Your task to perform on an android device: Open maps Image 0: 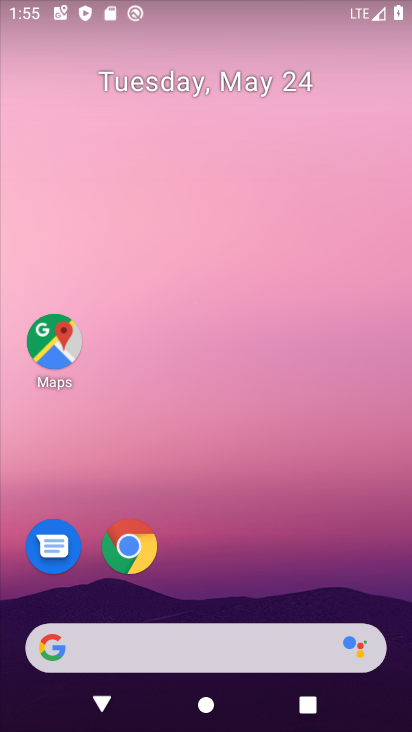
Step 0: drag from (245, 513) to (187, 92)
Your task to perform on an android device: Open maps Image 1: 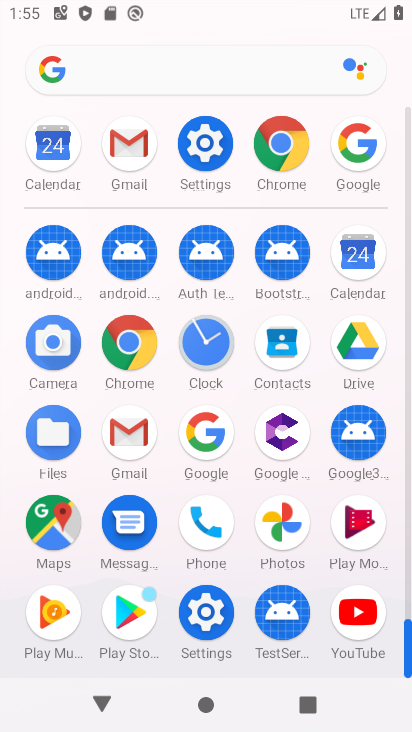
Step 1: click (29, 521)
Your task to perform on an android device: Open maps Image 2: 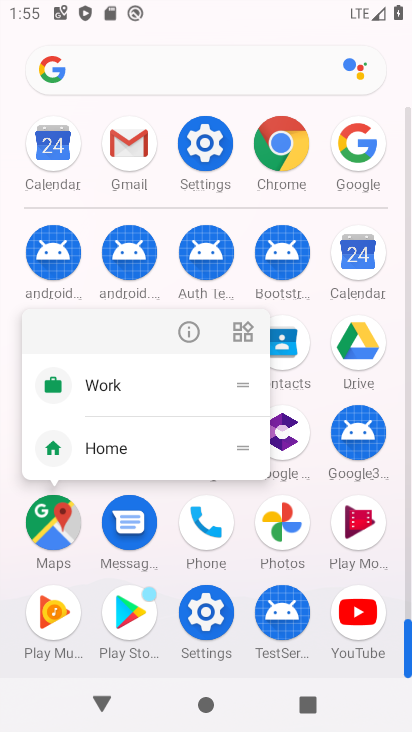
Step 2: click (185, 329)
Your task to perform on an android device: Open maps Image 3: 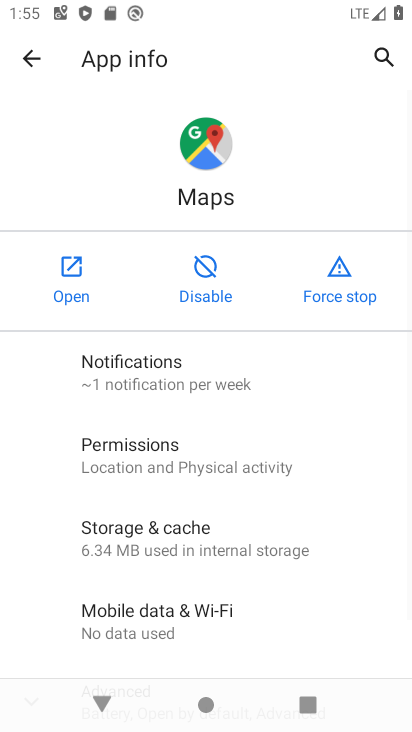
Step 3: click (74, 270)
Your task to perform on an android device: Open maps Image 4: 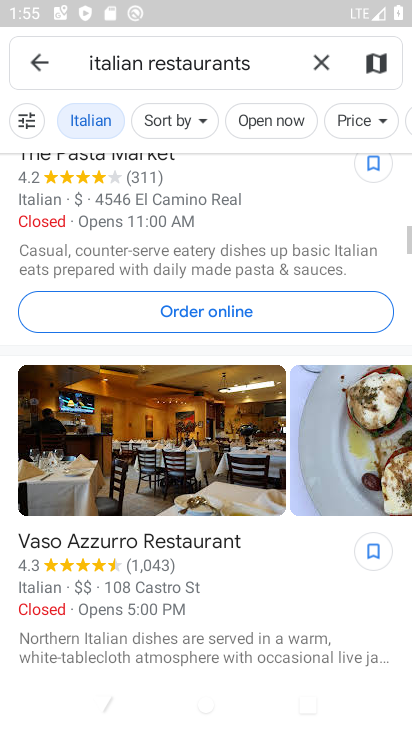
Step 4: task complete